Your task to perform on an android device: Open Amazon Image 0: 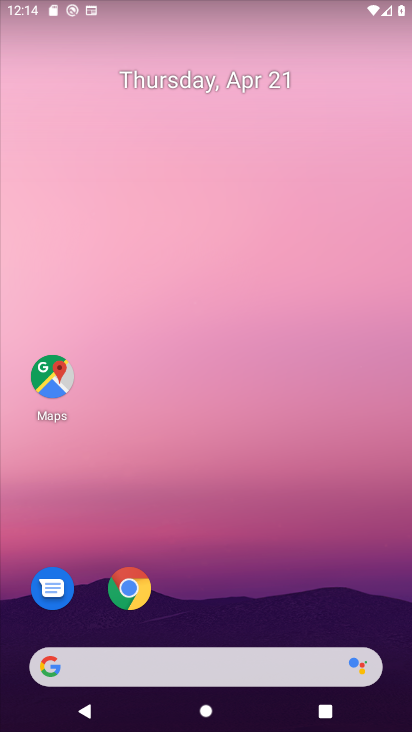
Step 0: click (124, 582)
Your task to perform on an android device: Open Amazon Image 1: 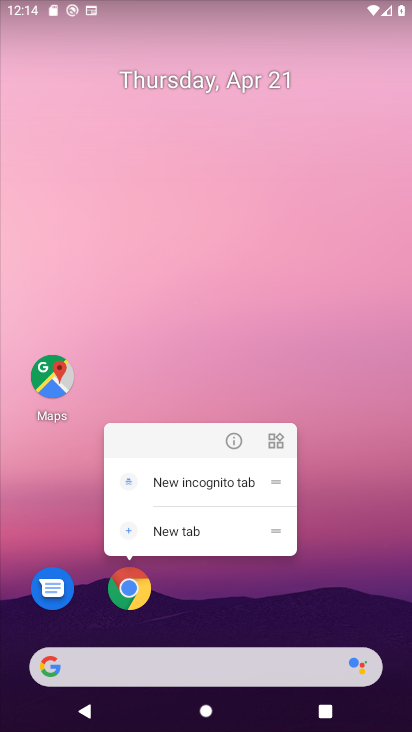
Step 1: click (128, 580)
Your task to perform on an android device: Open Amazon Image 2: 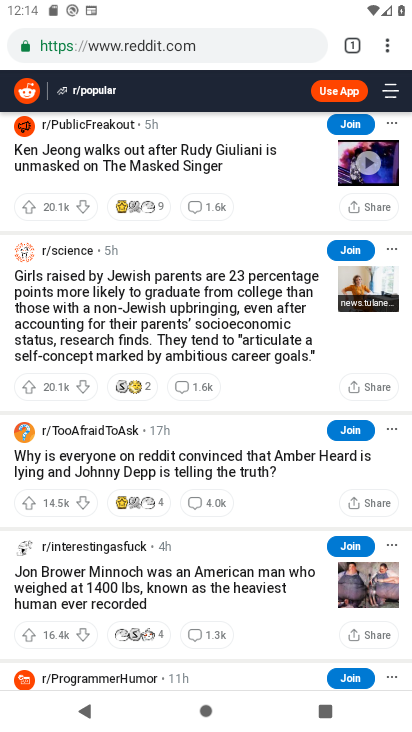
Step 2: click (351, 38)
Your task to perform on an android device: Open Amazon Image 3: 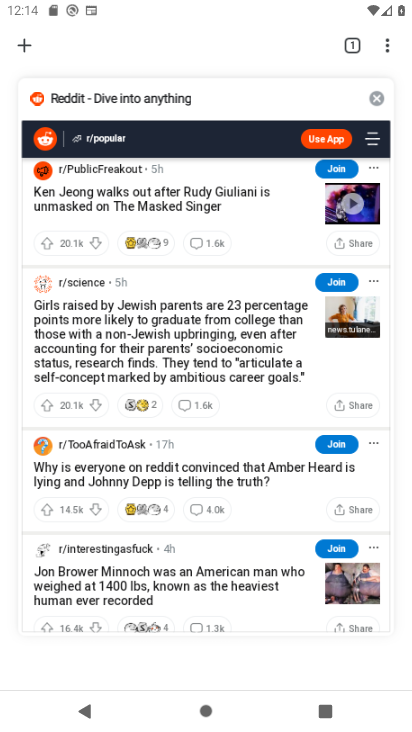
Step 3: click (375, 95)
Your task to perform on an android device: Open Amazon Image 4: 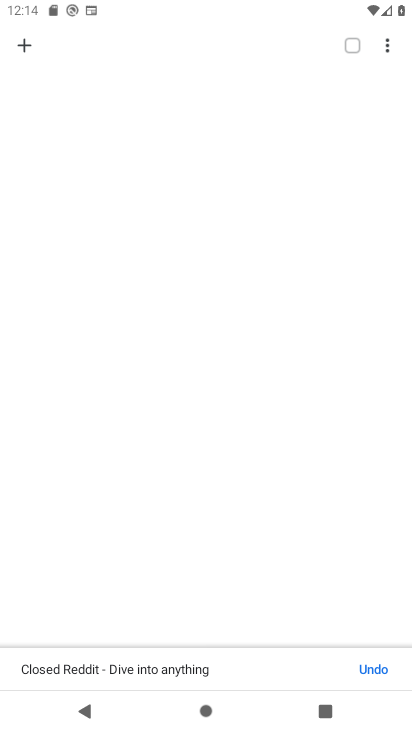
Step 4: click (23, 44)
Your task to perform on an android device: Open Amazon Image 5: 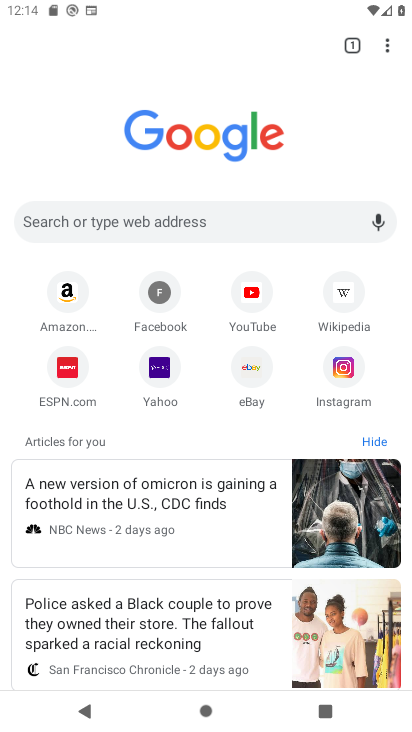
Step 5: click (62, 282)
Your task to perform on an android device: Open Amazon Image 6: 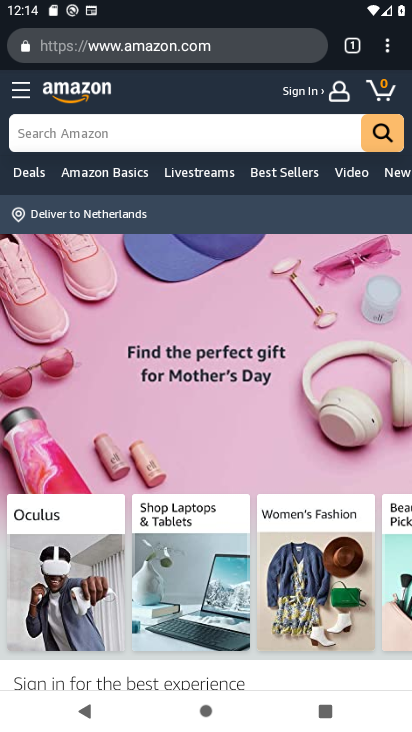
Step 6: task complete